Your task to perform on an android device: empty trash in google photos Image 0: 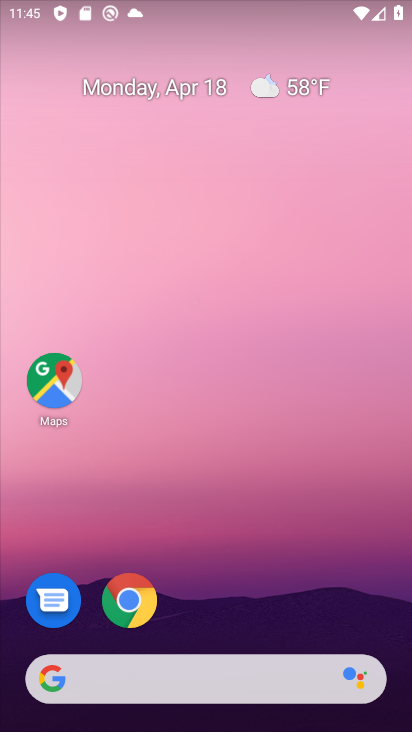
Step 0: drag from (236, 700) to (362, 240)
Your task to perform on an android device: empty trash in google photos Image 1: 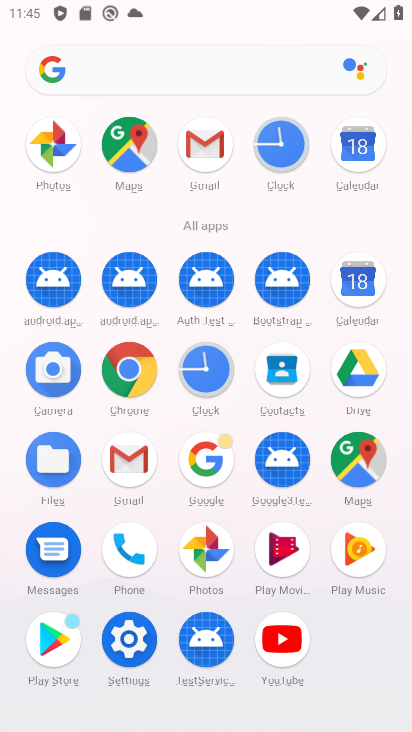
Step 1: click (196, 551)
Your task to perform on an android device: empty trash in google photos Image 2: 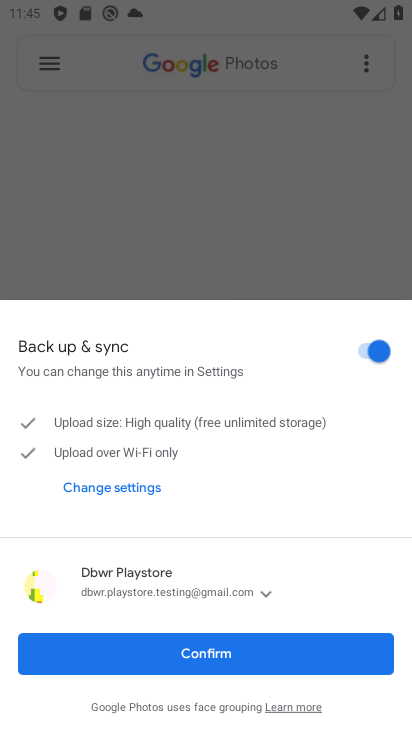
Step 2: click (170, 651)
Your task to perform on an android device: empty trash in google photos Image 3: 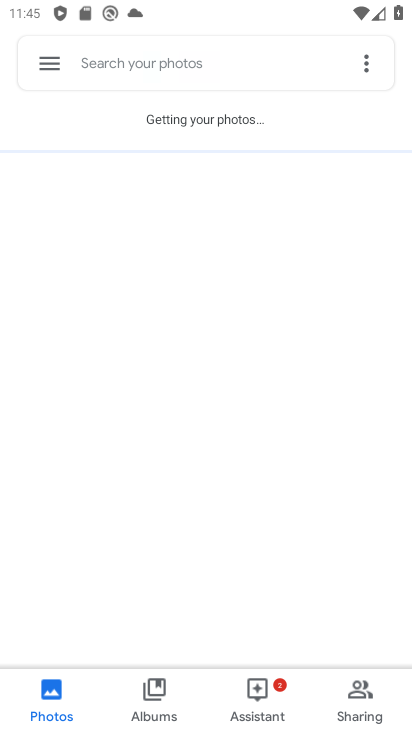
Step 3: click (46, 60)
Your task to perform on an android device: empty trash in google photos Image 4: 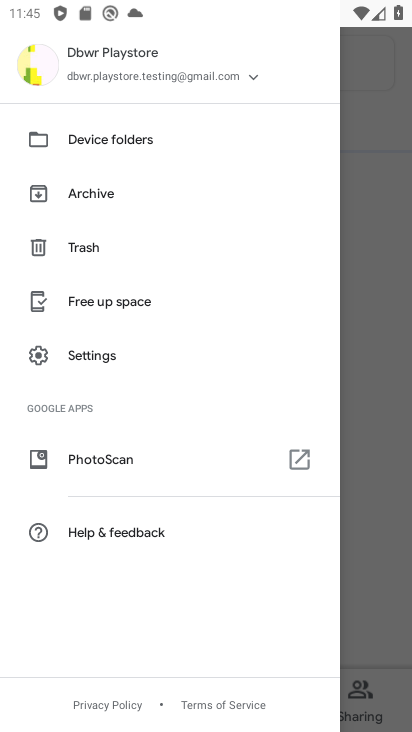
Step 4: click (79, 247)
Your task to perform on an android device: empty trash in google photos Image 5: 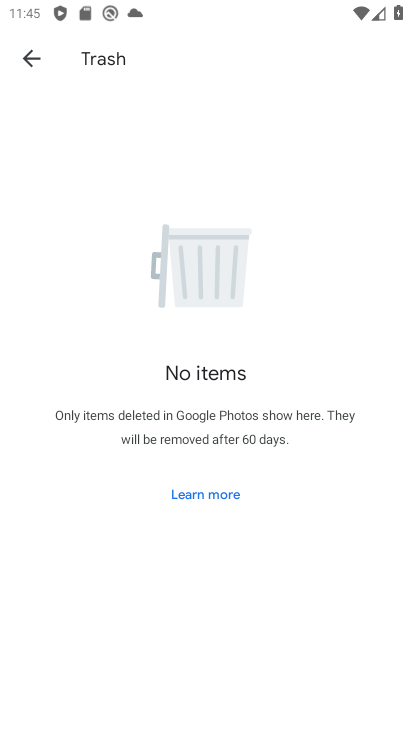
Step 5: task complete